Your task to perform on an android device: Go to Reddit.com Image 0: 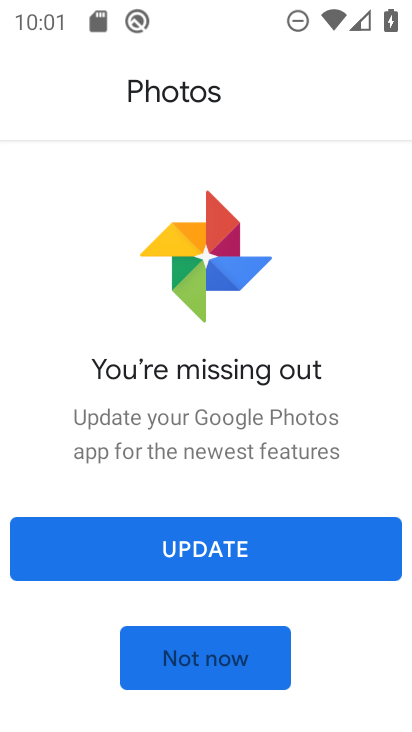
Step 0: press home button
Your task to perform on an android device: Go to Reddit.com Image 1: 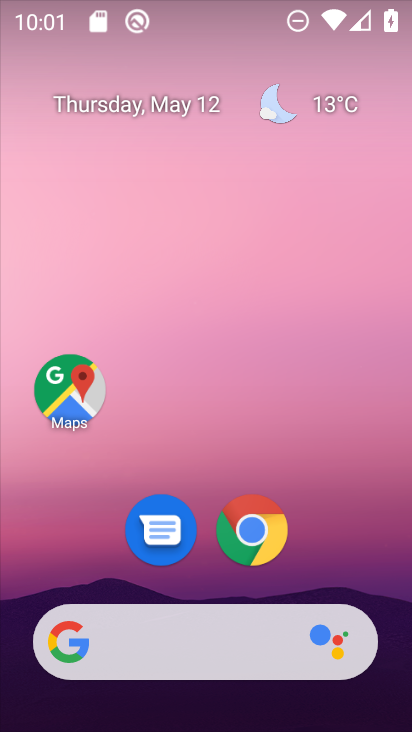
Step 1: click (275, 535)
Your task to perform on an android device: Go to Reddit.com Image 2: 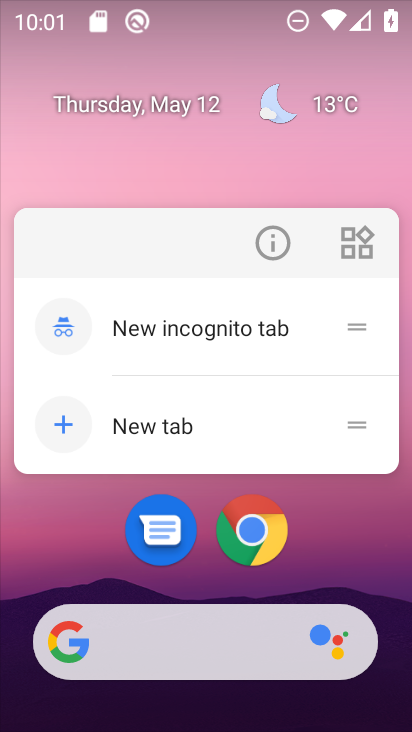
Step 2: click (275, 532)
Your task to perform on an android device: Go to Reddit.com Image 3: 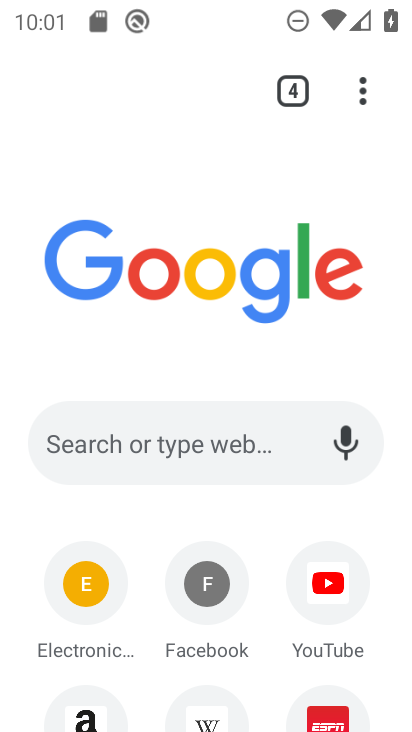
Step 3: click (221, 441)
Your task to perform on an android device: Go to Reddit.com Image 4: 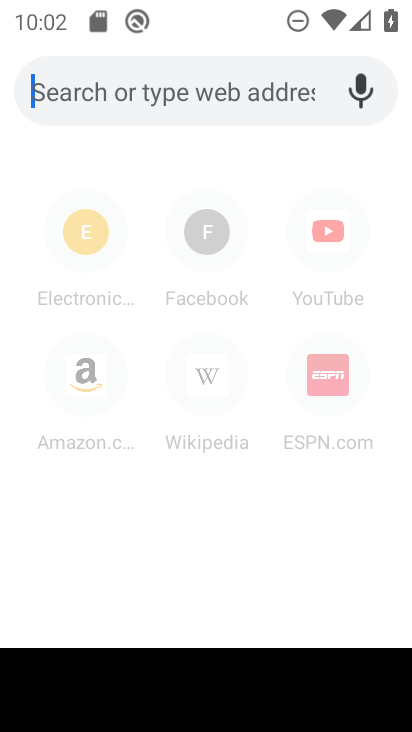
Step 4: type "Reddit.com"
Your task to perform on an android device: Go to Reddit.com Image 5: 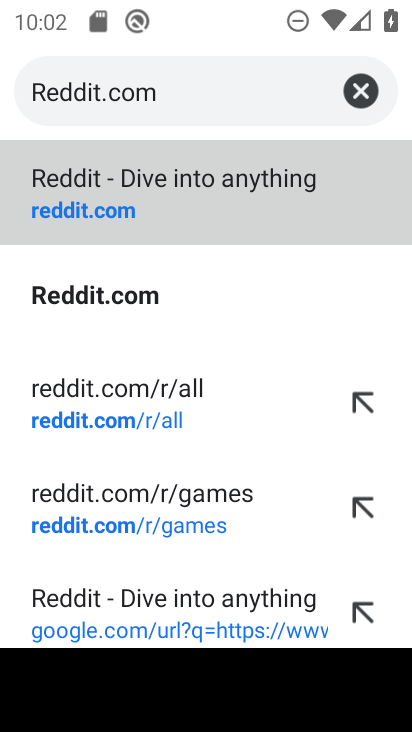
Step 5: click (249, 292)
Your task to perform on an android device: Go to Reddit.com Image 6: 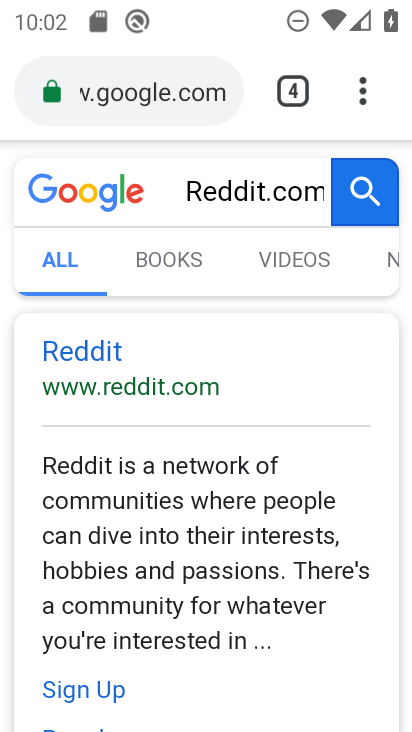
Step 6: drag from (309, 670) to (310, 318)
Your task to perform on an android device: Go to Reddit.com Image 7: 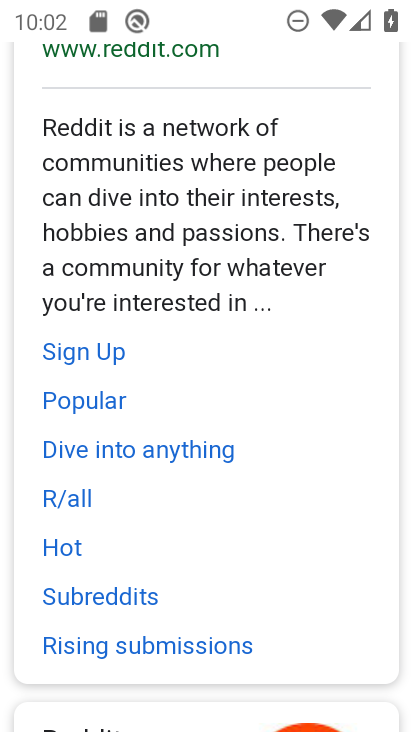
Step 7: drag from (301, 575) to (349, 209)
Your task to perform on an android device: Go to Reddit.com Image 8: 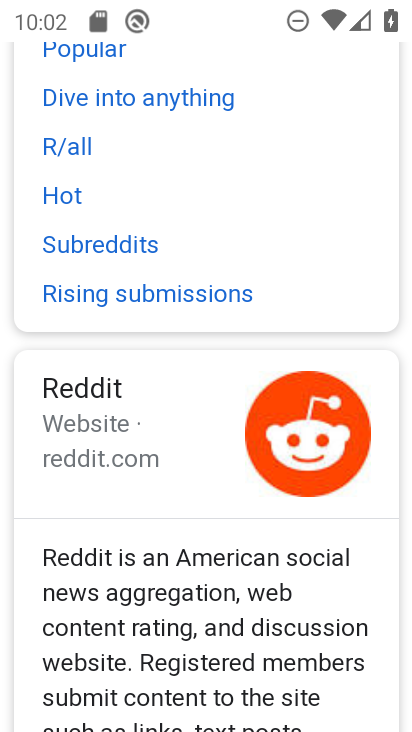
Step 8: drag from (301, 153) to (210, 586)
Your task to perform on an android device: Go to Reddit.com Image 9: 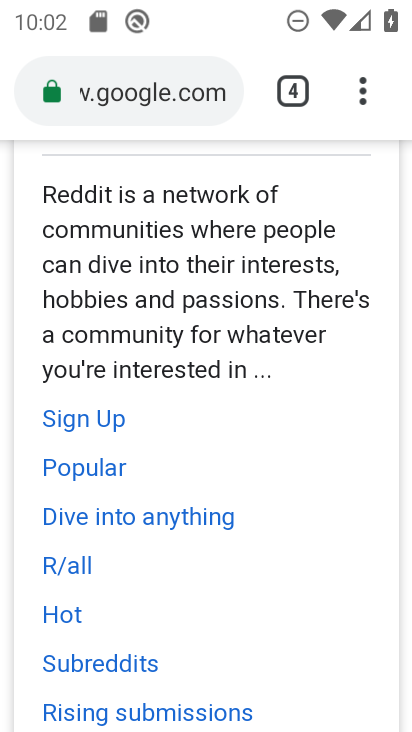
Step 9: drag from (261, 358) to (186, 589)
Your task to perform on an android device: Go to Reddit.com Image 10: 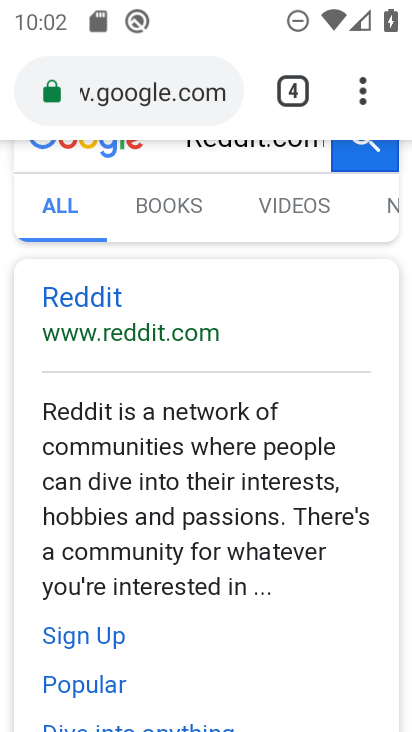
Step 10: click (133, 296)
Your task to perform on an android device: Go to Reddit.com Image 11: 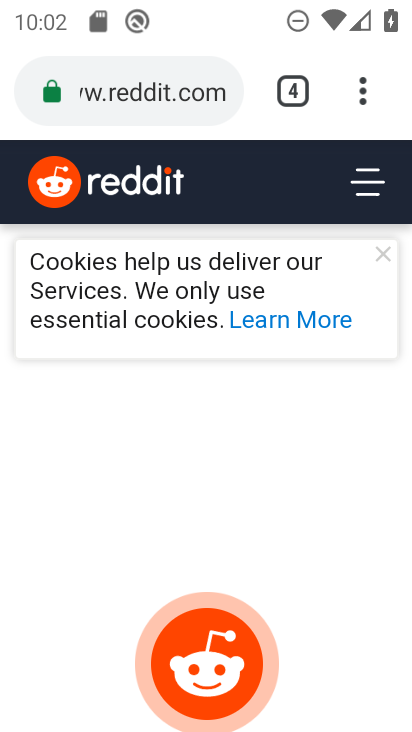
Step 11: task complete